Your task to perform on an android device: turn off sleep mode Image 0: 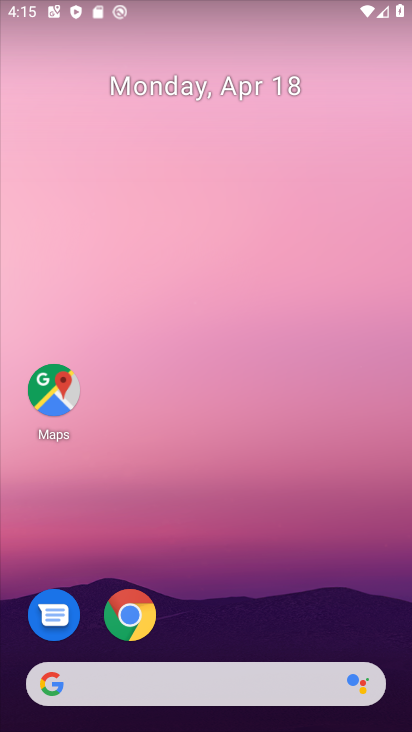
Step 0: drag from (314, 14) to (253, 511)
Your task to perform on an android device: turn off sleep mode Image 1: 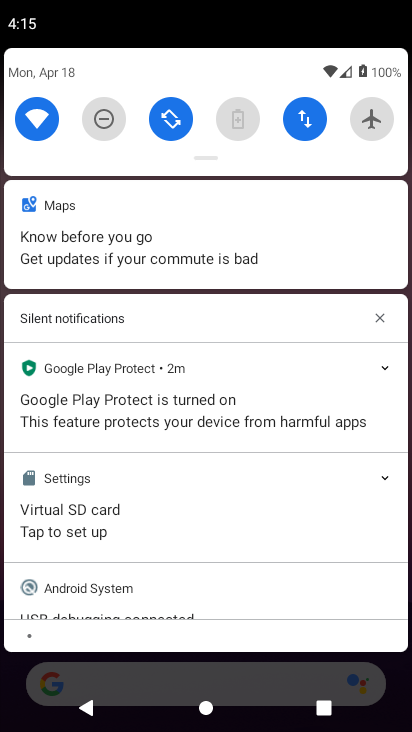
Step 1: drag from (209, 146) to (226, 520)
Your task to perform on an android device: turn off sleep mode Image 2: 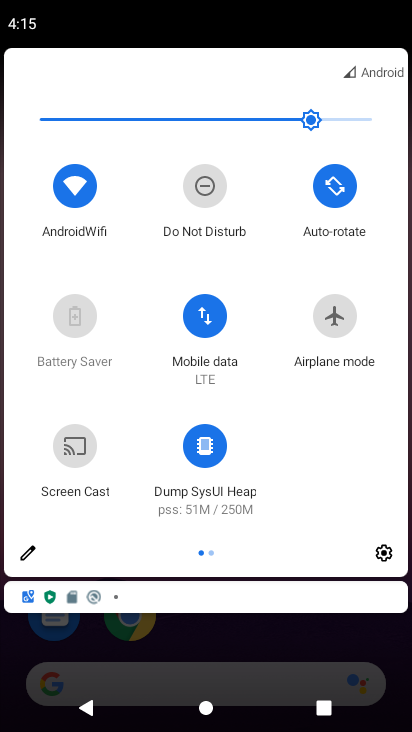
Step 2: click (26, 548)
Your task to perform on an android device: turn off sleep mode Image 3: 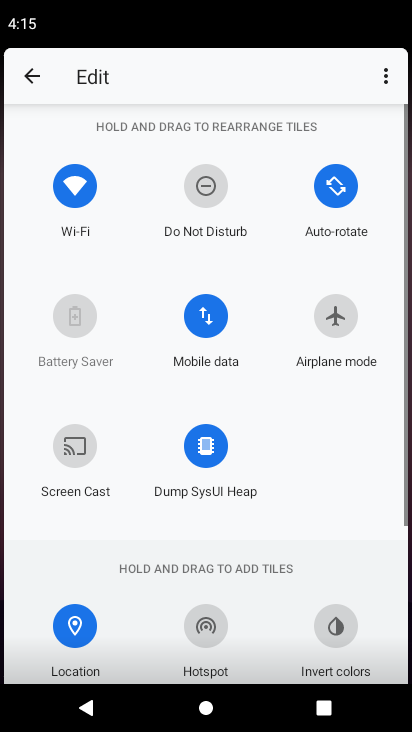
Step 3: task complete